Your task to perform on an android device: change the clock display to digital Image 0: 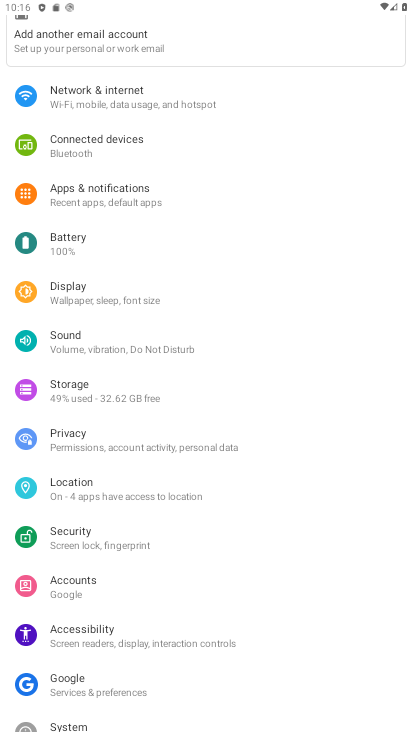
Step 0: press home button
Your task to perform on an android device: change the clock display to digital Image 1: 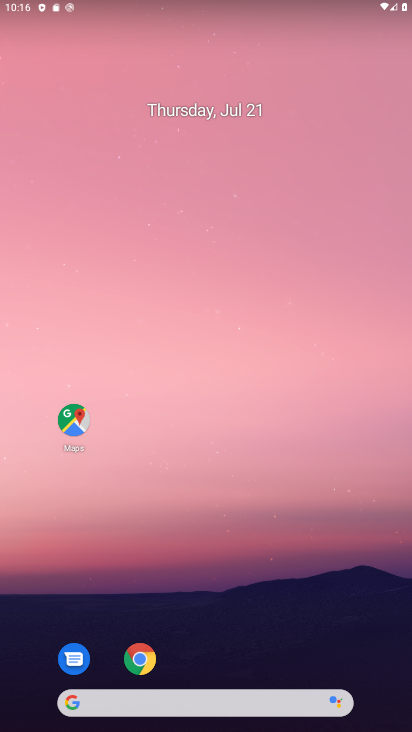
Step 1: drag from (215, 722) to (162, 134)
Your task to perform on an android device: change the clock display to digital Image 2: 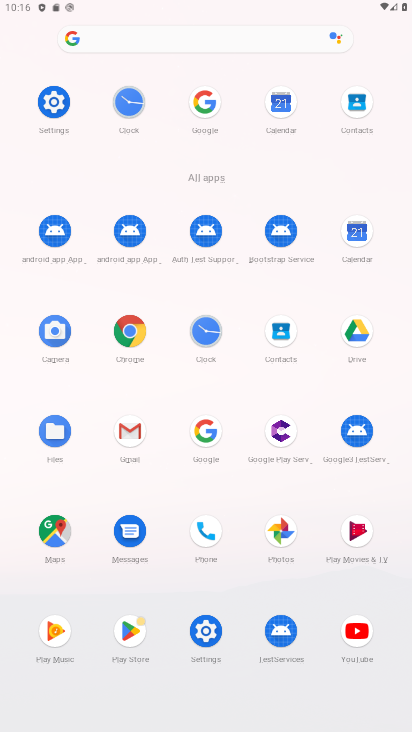
Step 2: click (204, 330)
Your task to perform on an android device: change the clock display to digital Image 3: 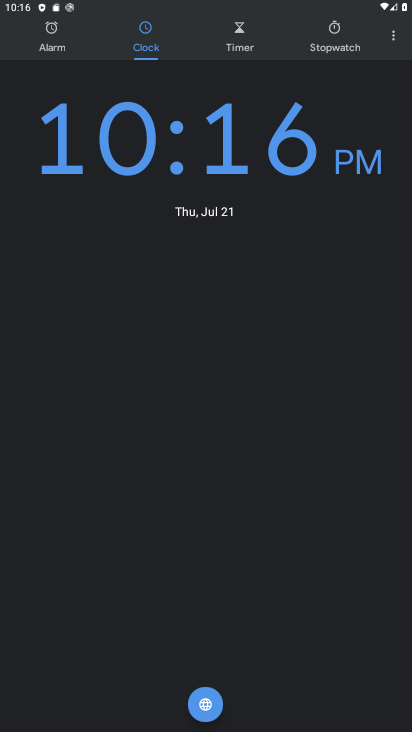
Step 3: click (395, 38)
Your task to perform on an android device: change the clock display to digital Image 4: 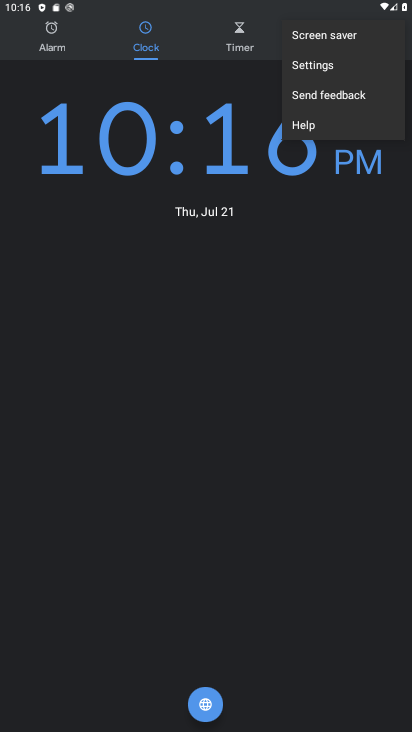
Step 4: click (308, 64)
Your task to perform on an android device: change the clock display to digital Image 5: 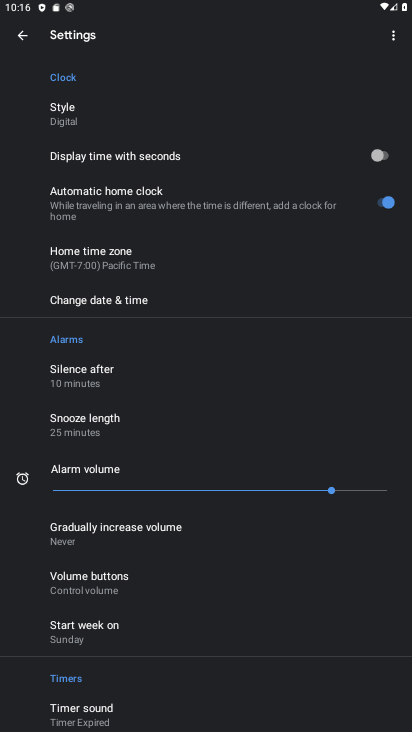
Step 5: task complete